Your task to perform on an android device: open app "PlayWell" (install if not already installed) Image 0: 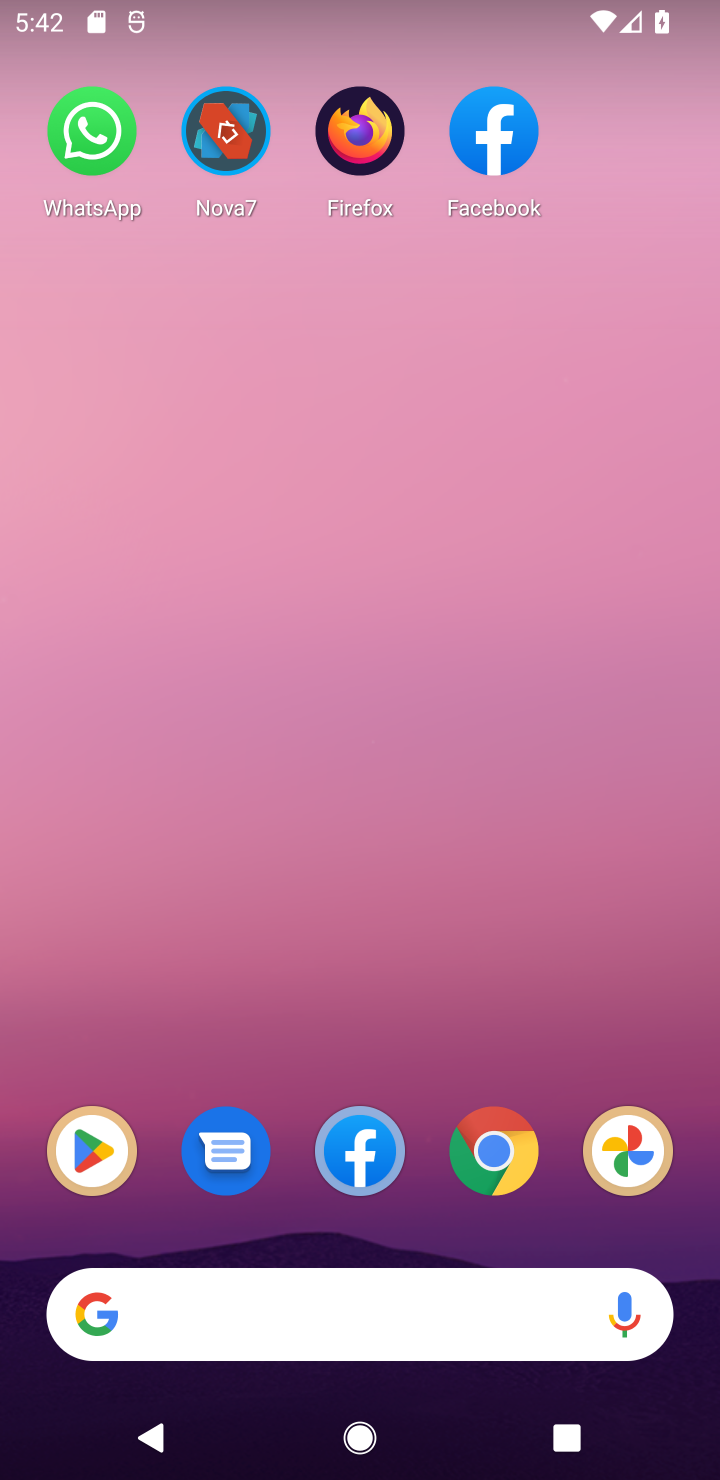
Step 0: click (86, 1181)
Your task to perform on an android device: open app "PlayWell" (install if not already installed) Image 1: 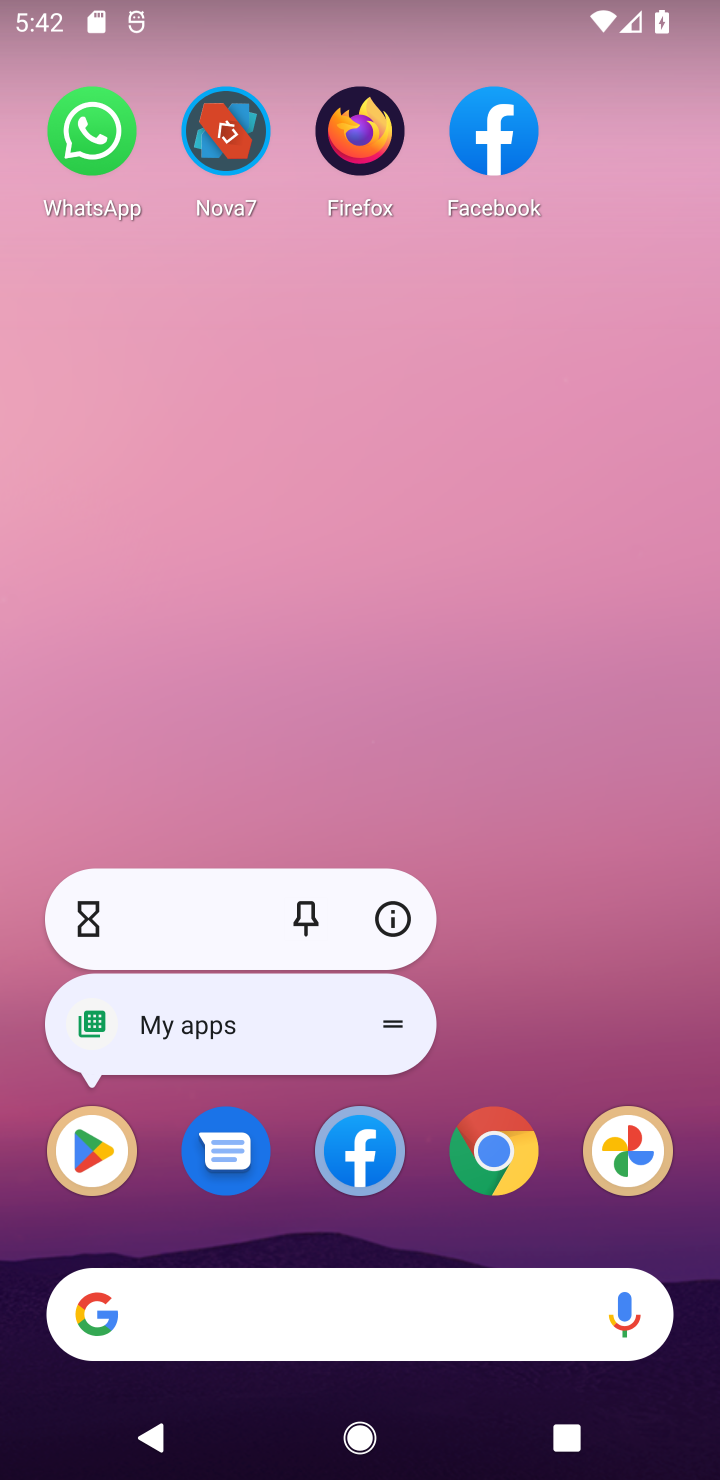
Step 1: click (90, 1158)
Your task to perform on an android device: open app "PlayWell" (install if not already installed) Image 2: 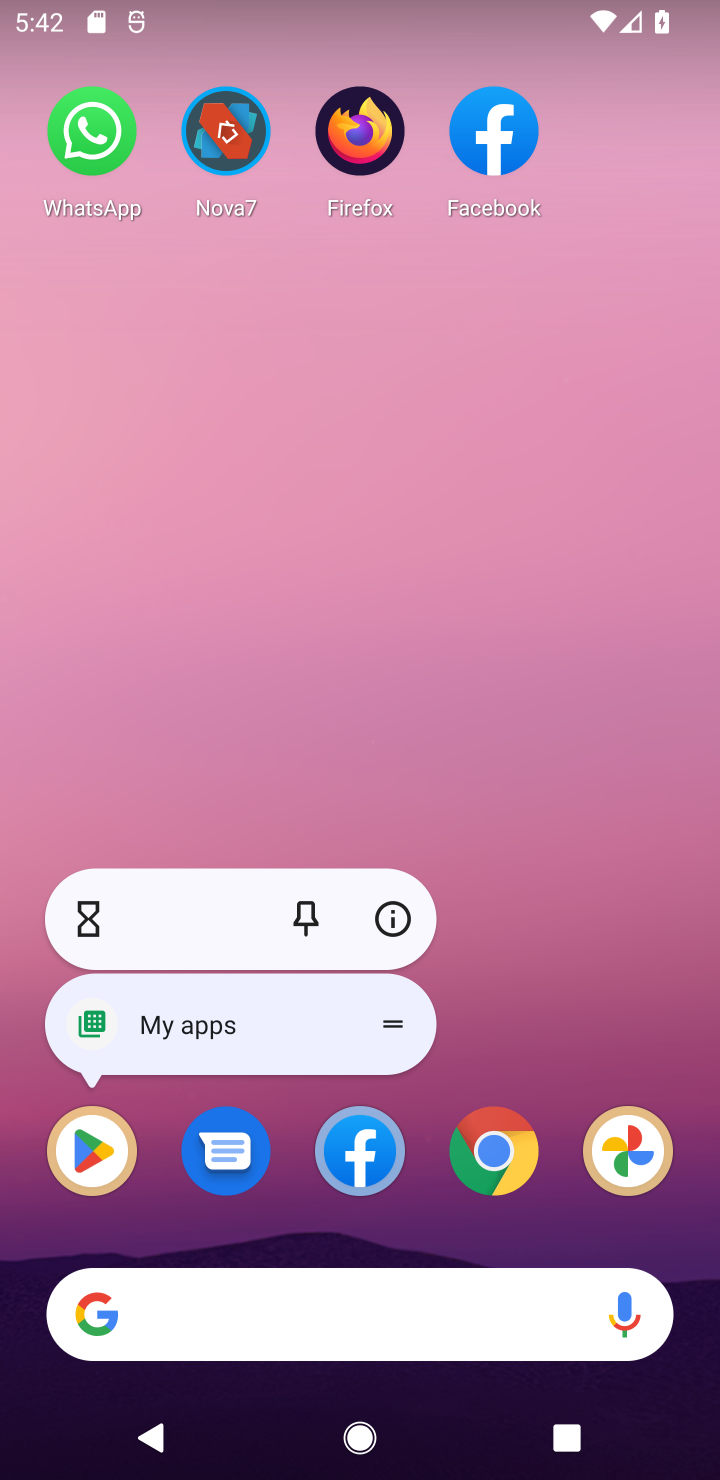
Step 2: click (90, 1158)
Your task to perform on an android device: open app "PlayWell" (install if not already installed) Image 3: 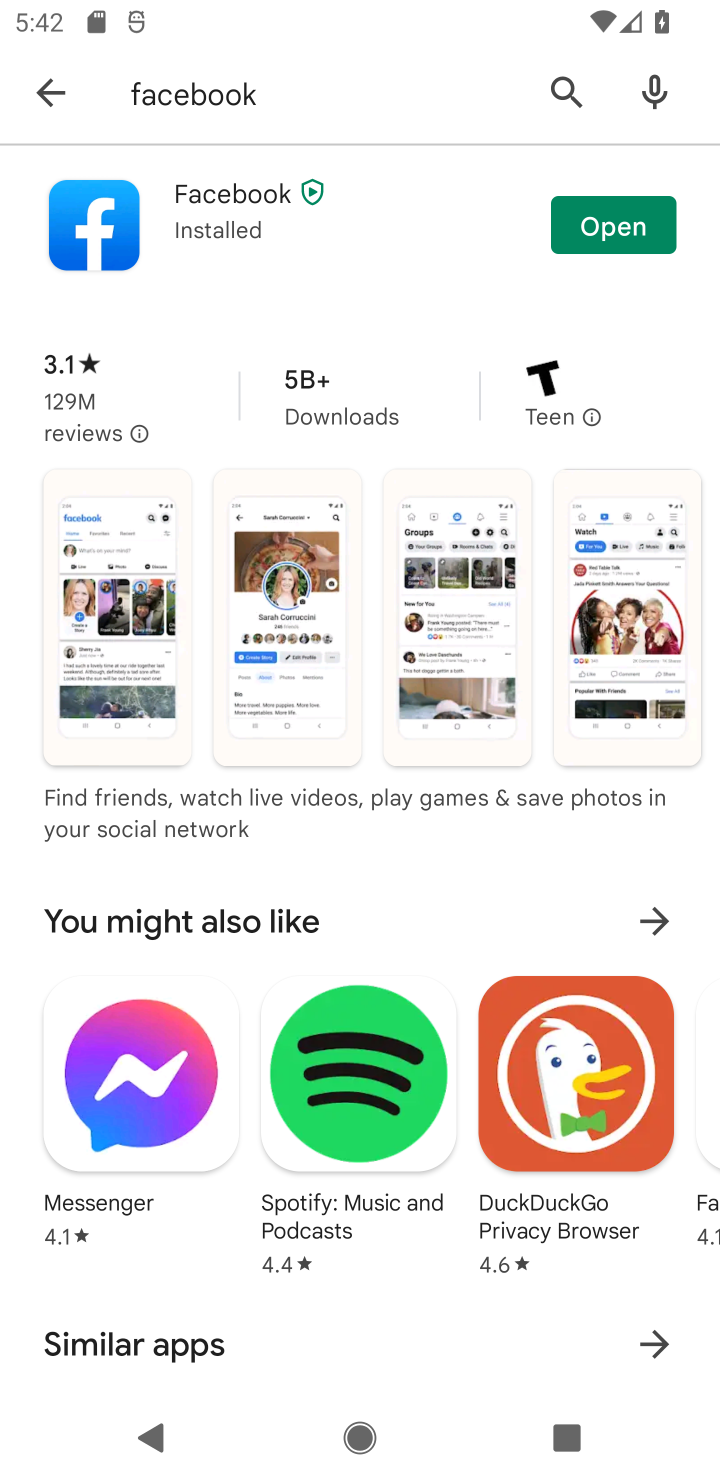
Step 3: click (576, 95)
Your task to perform on an android device: open app "PlayWell" (install if not already installed) Image 4: 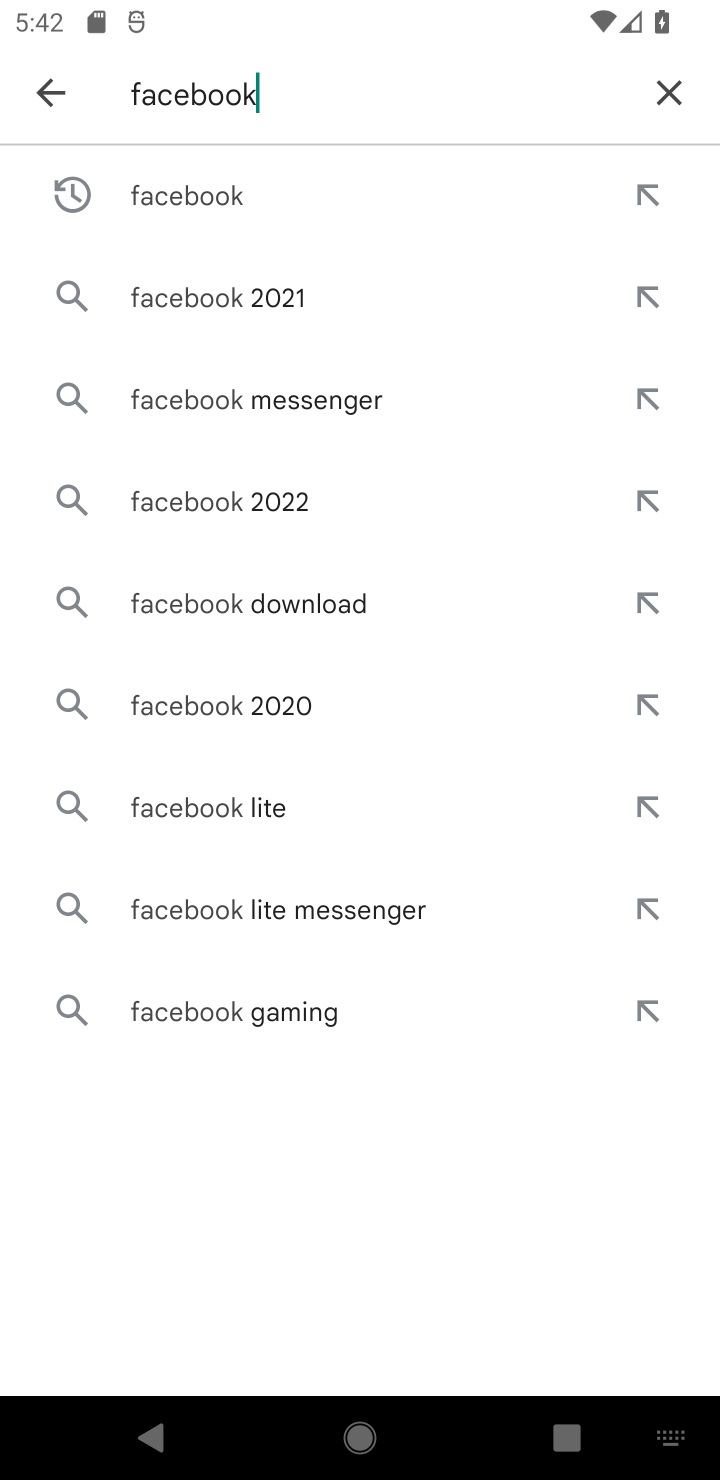
Step 4: click (686, 95)
Your task to perform on an android device: open app "PlayWell" (install if not already installed) Image 5: 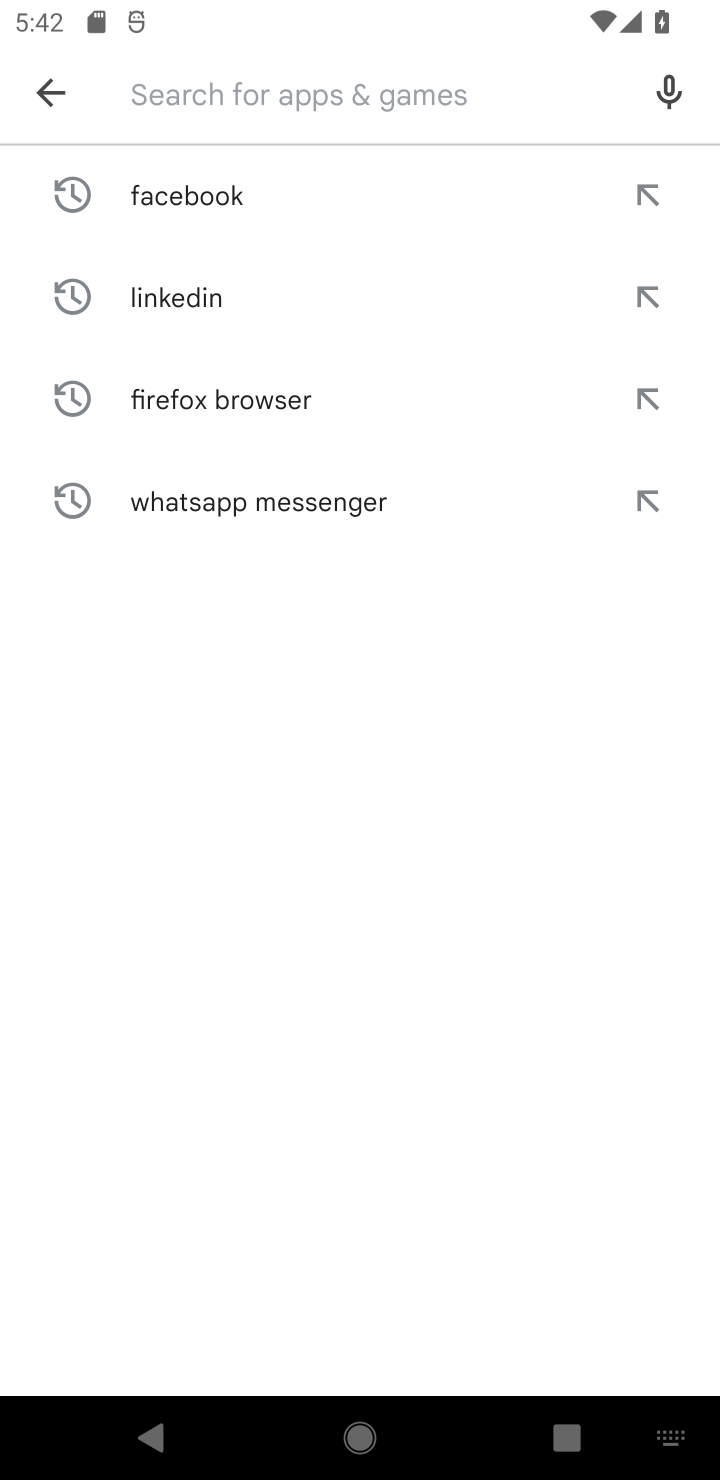
Step 5: type "PlayWell"
Your task to perform on an android device: open app "PlayWell" (install if not already installed) Image 6: 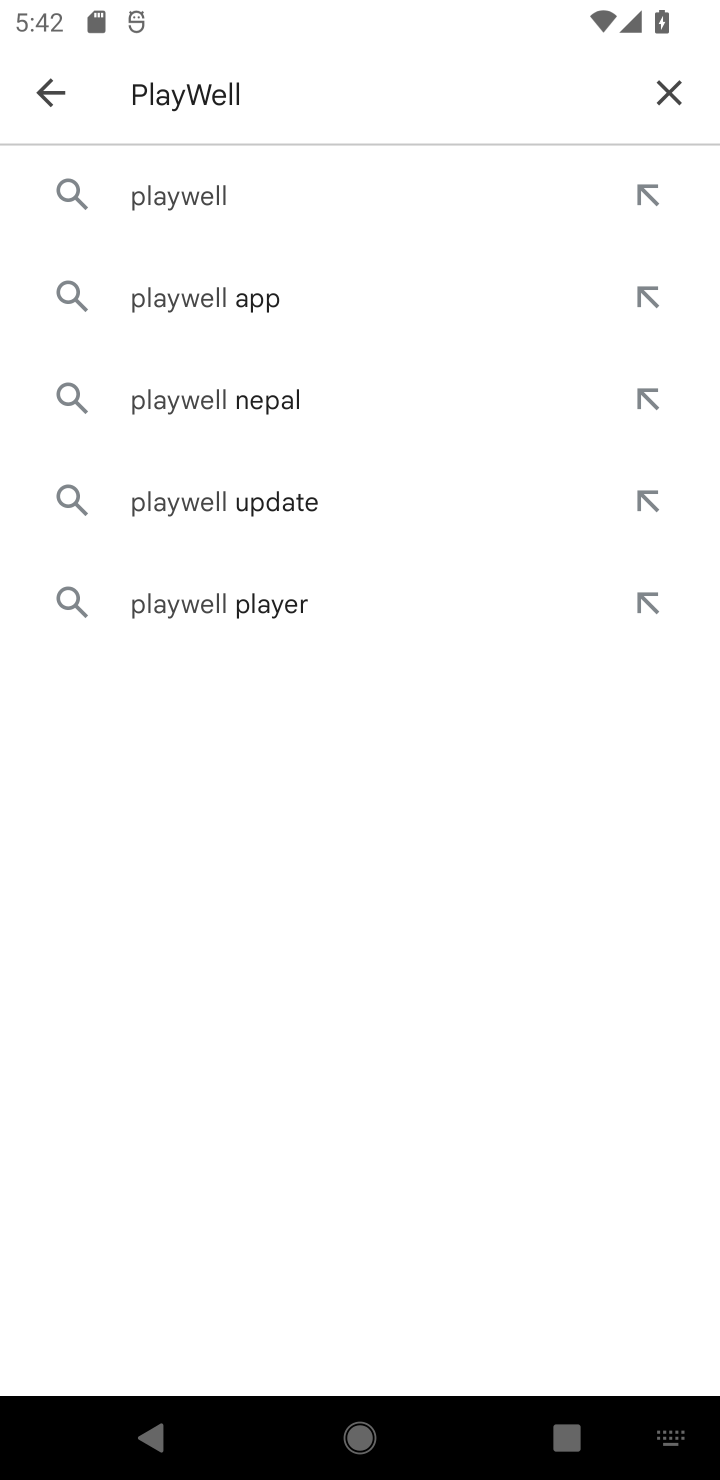
Step 6: click (130, 220)
Your task to perform on an android device: open app "PlayWell" (install if not already installed) Image 7: 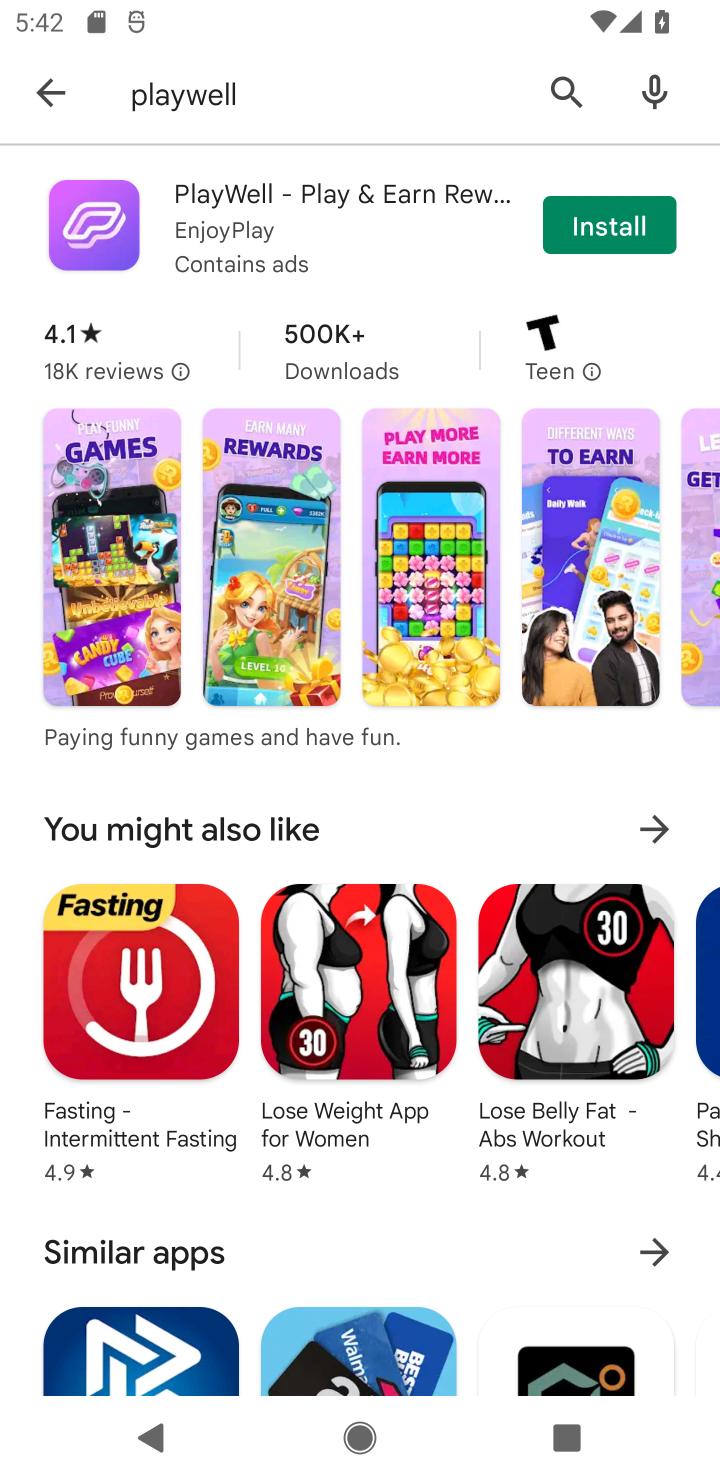
Step 7: click (591, 236)
Your task to perform on an android device: open app "PlayWell" (install if not already installed) Image 8: 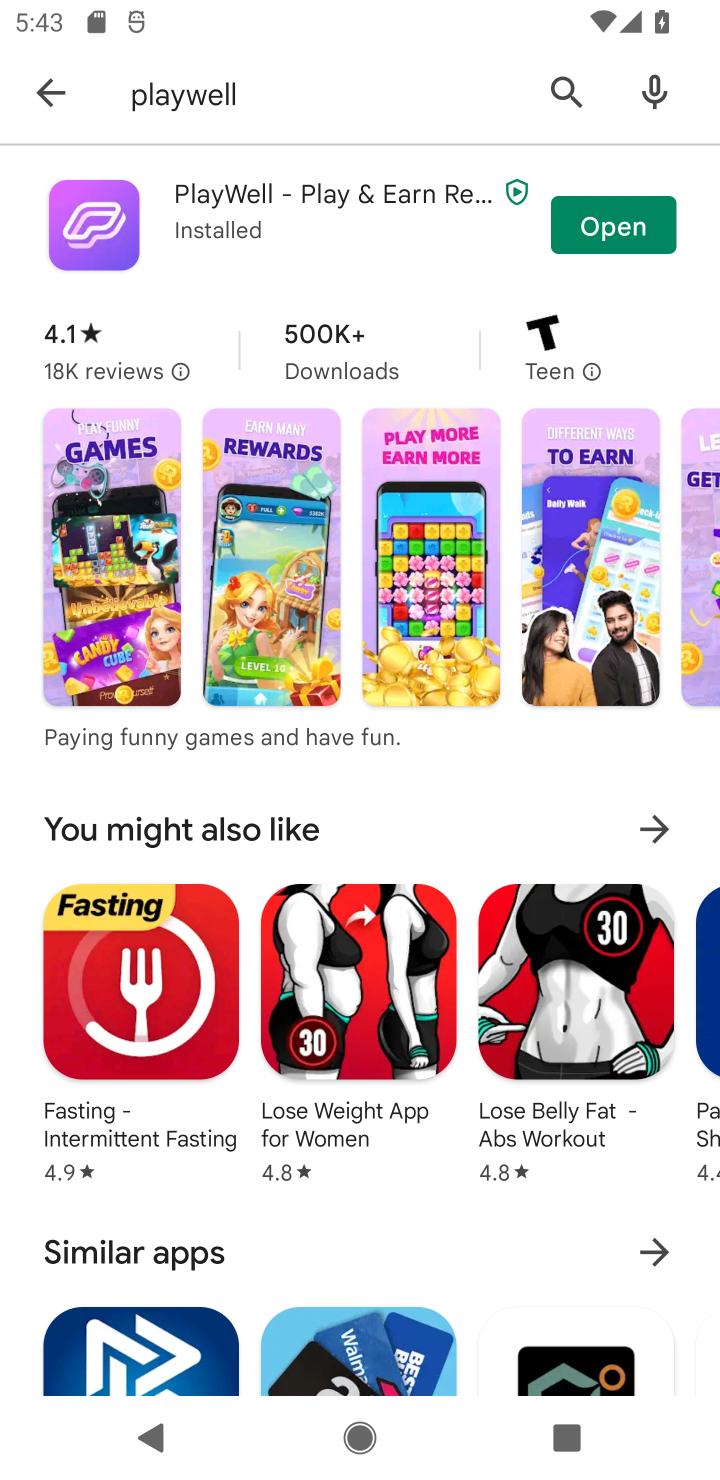
Step 8: click (583, 225)
Your task to perform on an android device: open app "PlayWell" (install if not already installed) Image 9: 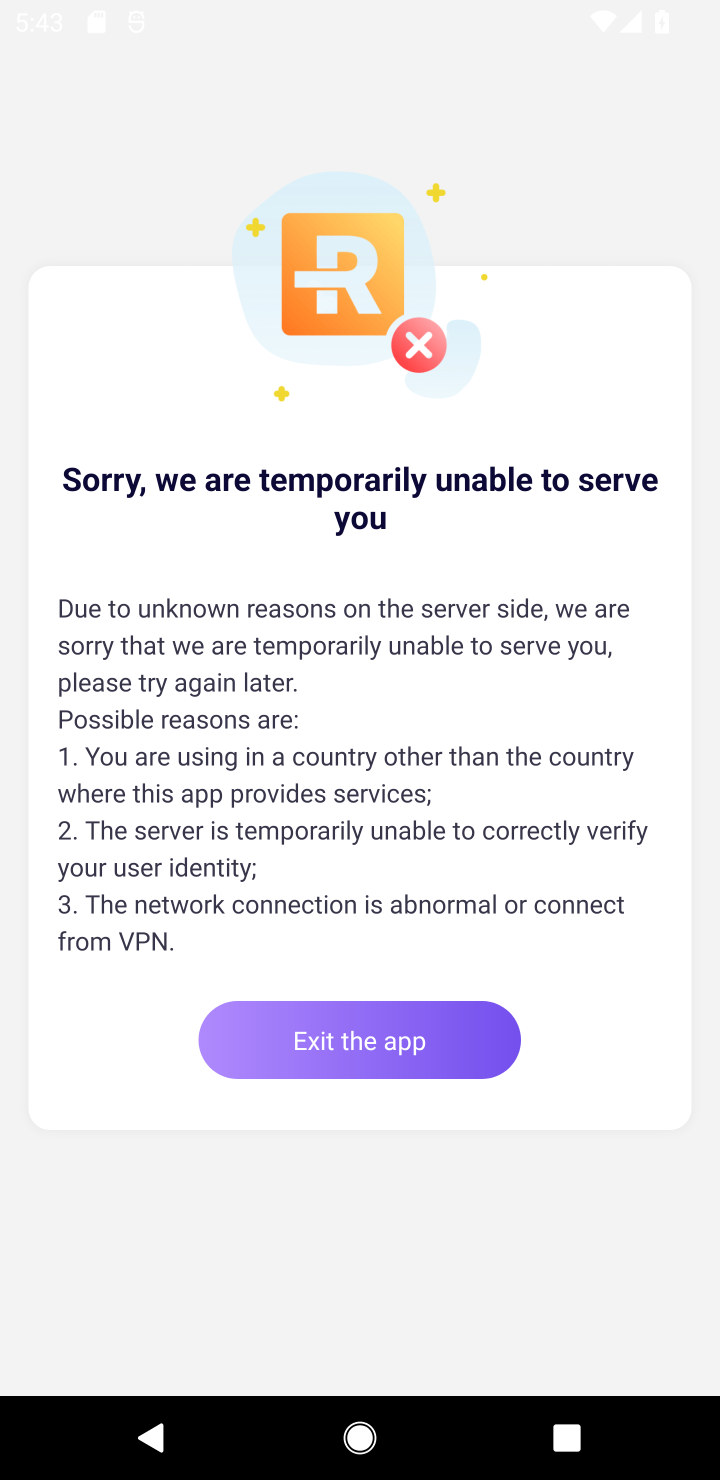
Step 9: task complete